Your task to perform on an android device: empty trash in google photos Image 0: 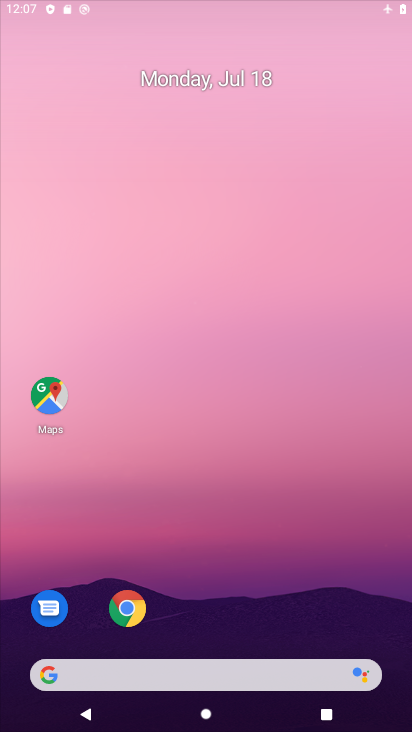
Step 0: drag from (303, 658) to (374, 43)
Your task to perform on an android device: empty trash in google photos Image 1: 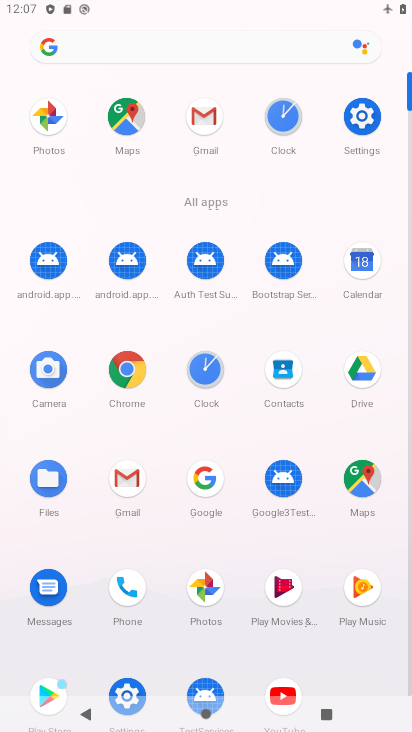
Step 1: click (211, 590)
Your task to perform on an android device: empty trash in google photos Image 2: 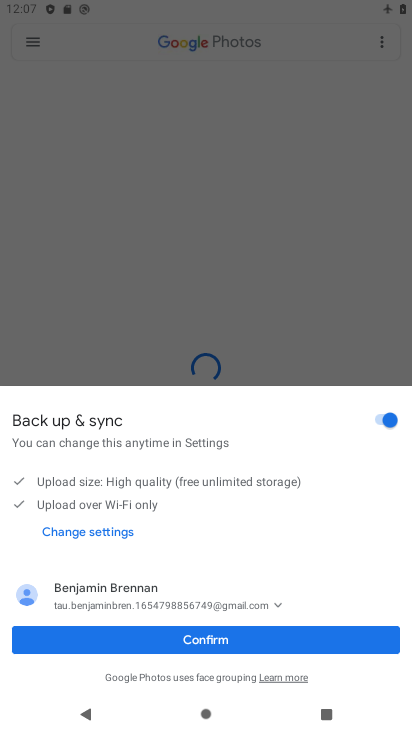
Step 2: click (213, 645)
Your task to perform on an android device: empty trash in google photos Image 3: 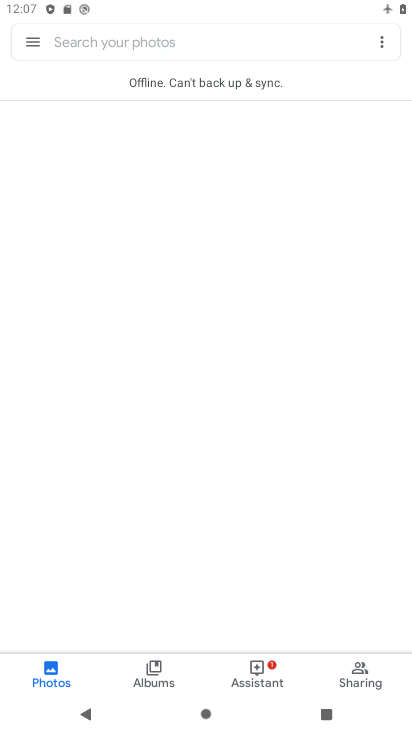
Step 3: click (41, 35)
Your task to perform on an android device: empty trash in google photos Image 4: 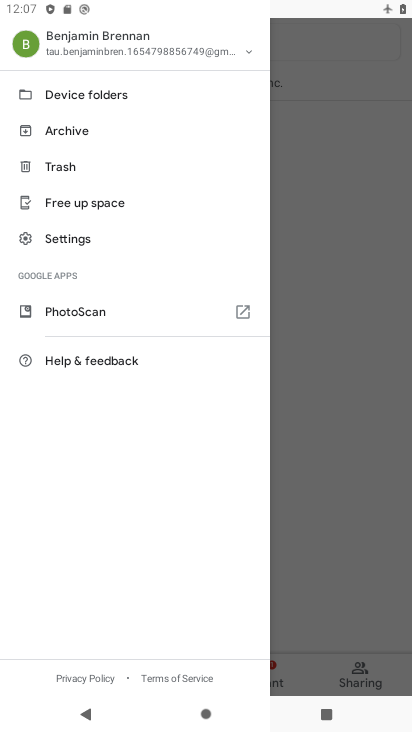
Step 4: click (120, 171)
Your task to perform on an android device: empty trash in google photos Image 5: 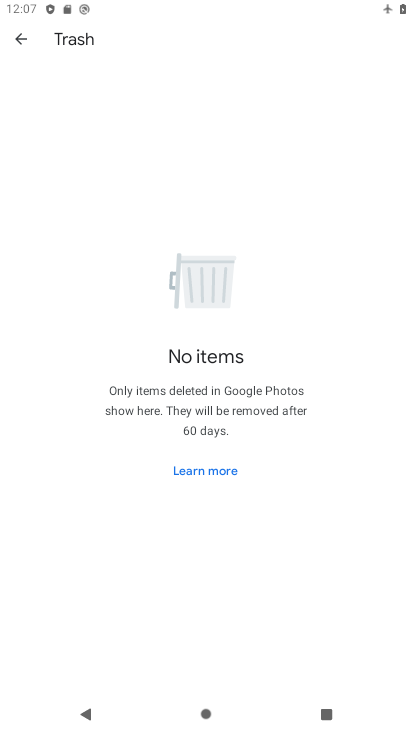
Step 5: task complete